Your task to perform on an android device: turn off notifications in google photos Image 0: 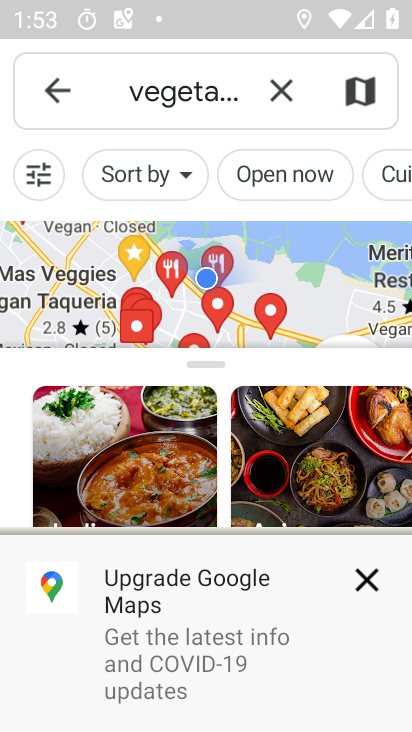
Step 0: press home button
Your task to perform on an android device: turn off notifications in google photos Image 1: 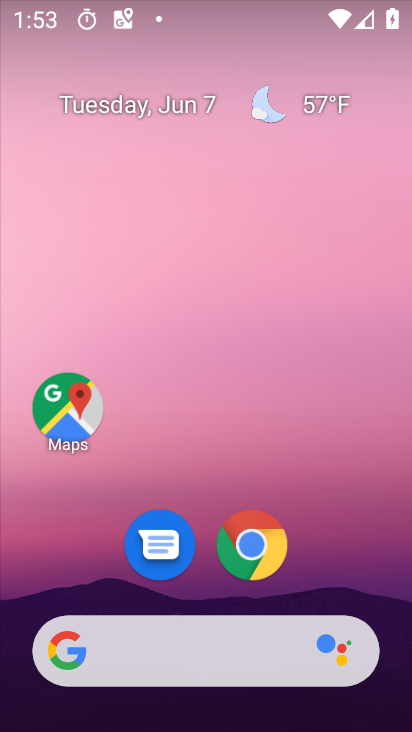
Step 1: drag from (357, 547) to (29, 101)
Your task to perform on an android device: turn off notifications in google photos Image 2: 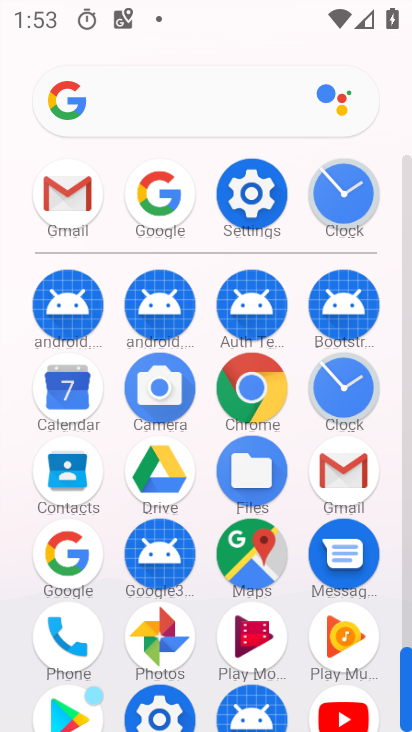
Step 2: click (151, 638)
Your task to perform on an android device: turn off notifications in google photos Image 3: 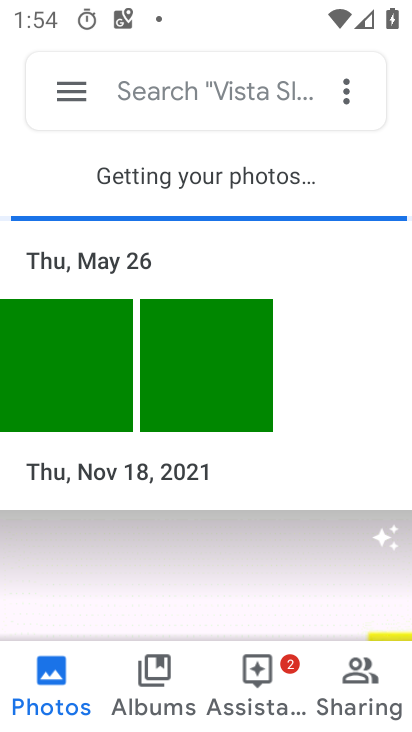
Step 3: click (61, 91)
Your task to perform on an android device: turn off notifications in google photos Image 4: 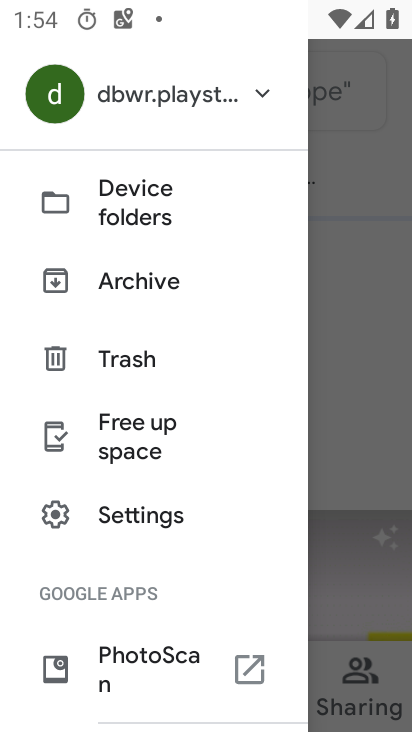
Step 4: click (160, 506)
Your task to perform on an android device: turn off notifications in google photos Image 5: 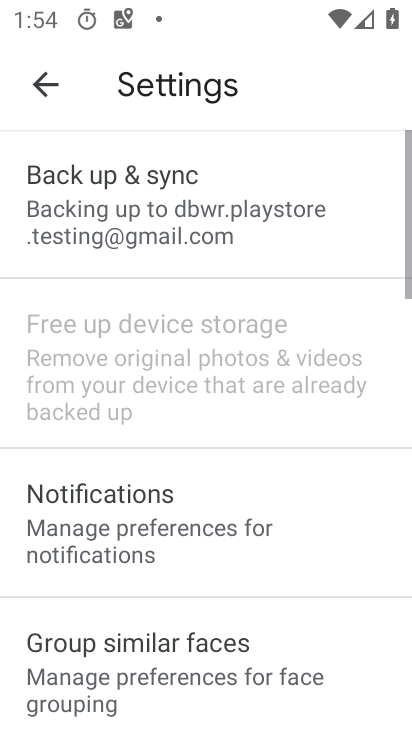
Step 5: click (191, 543)
Your task to perform on an android device: turn off notifications in google photos Image 6: 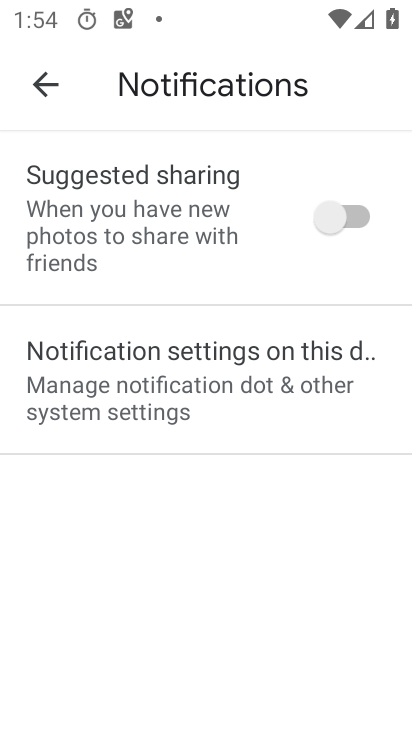
Step 6: task complete